Your task to perform on an android device: open app "Firefox Browser" Image 0: 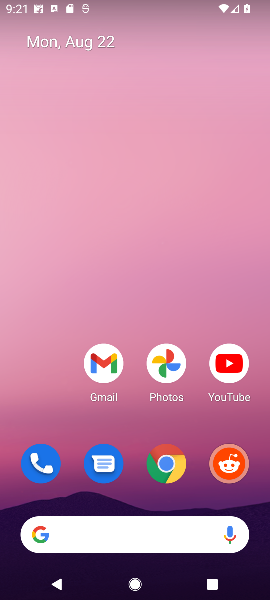
Step 0: drag from (147, 454) to (80, 17)
Your task to perform on an android device: open app "Firefox Browser" Image 1: 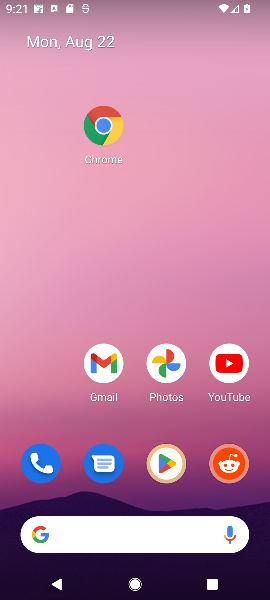
Step 1: click (176, 461)
Your task to perform on an android device: open app "Firefox Browser" Image 2: 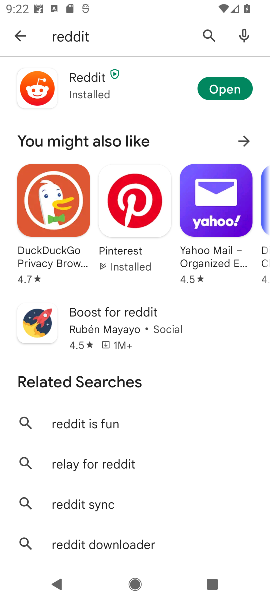
Step 2: click (19, 33)
Your task to perform on an android device: open app "Firefox Browser" Image 3: 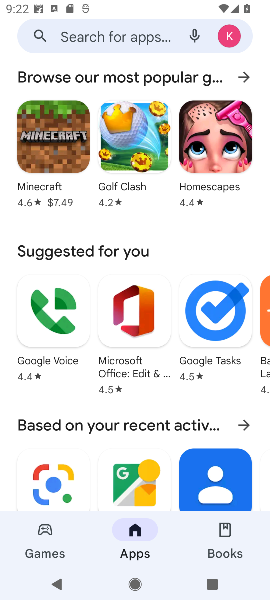
Step 3: click (123, 37)
Your task to perform on an android device: open app "Firefox Browser" Image 4: 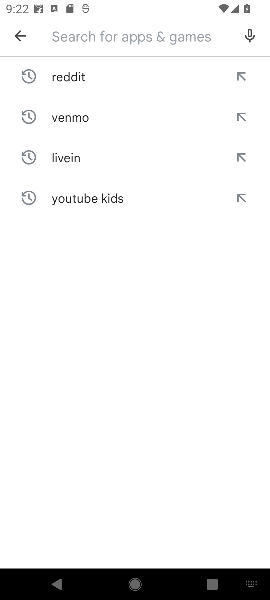
Step 4: click (82, 124)
Your task to perform on an android device: open app "Firefox Browser" Image 5: 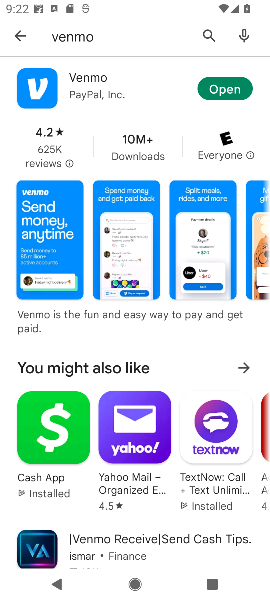
Step 5: click (17, 32)
Your task to perform on an android device: open app "Firefox Browser" Image 6: 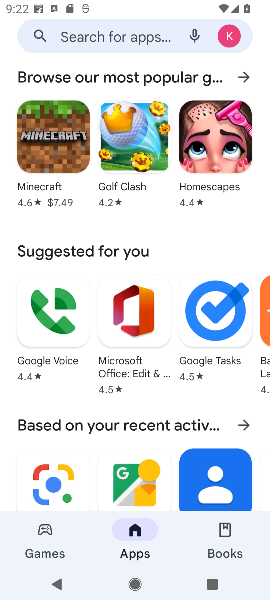
Step 6: click (72, 32)
Your task to perform on an android device: open app "Firefox Browser" Image 7: 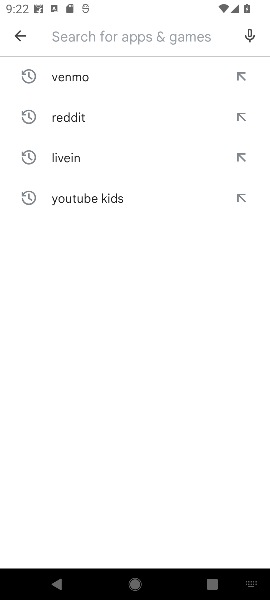
Step 7: type "Firefox Browser"
Your task to perform on an android device: open app "Firefox Browser" Image 8: 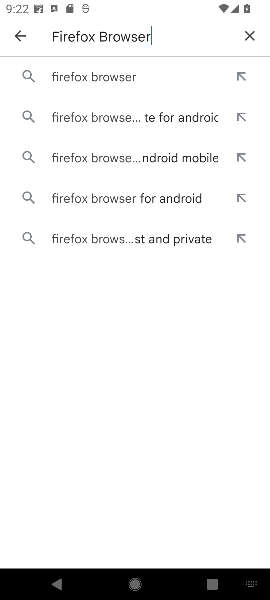
Step 8: click (117, 82)
Your task to perform on an android device: open app "Firefox Browser" Image 9: 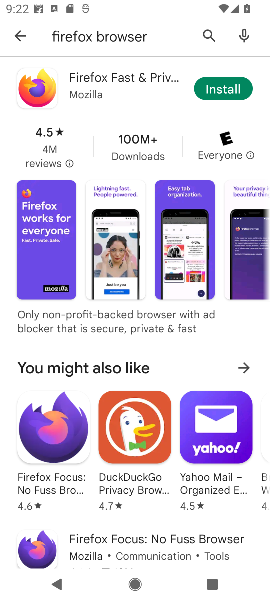
Step 9: click (229, 86)
Your task to perform on an android device: open app "Firefox Browser" Image 10: 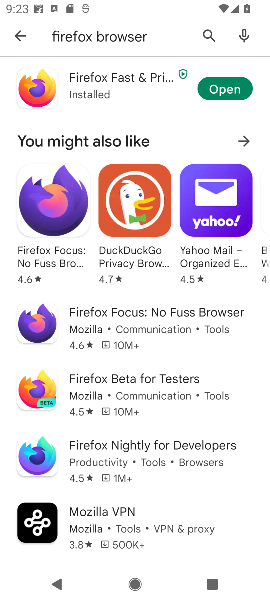
Step 10: click (229, 86)
Your task to perform on an android device: open app "Firefox Browser" Image 11: 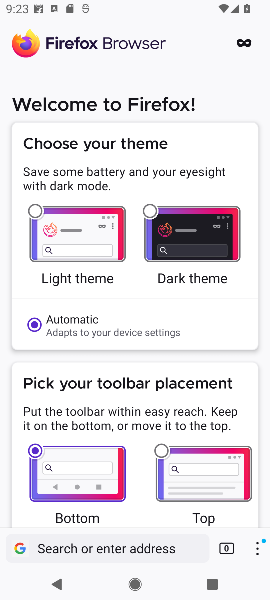
Step 11: task complete